Your task to perform on an android device: all mails in gmail Image 0: 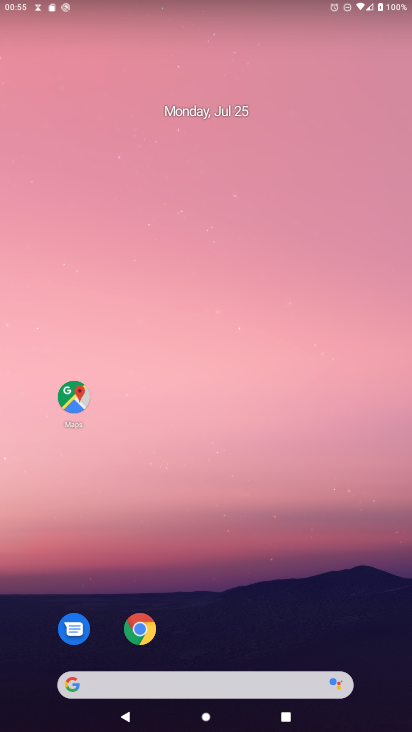
Step 0: drag from (168, 548) to (260, 0)
Your task to perform on an android device: all mails in gmail Image 1: 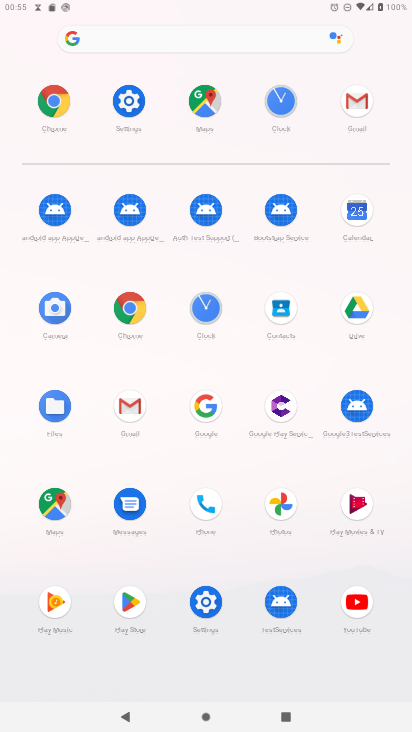
Step 1: click (129, 405)
Your task to perform on an android device: all mails in gmail Image 2: 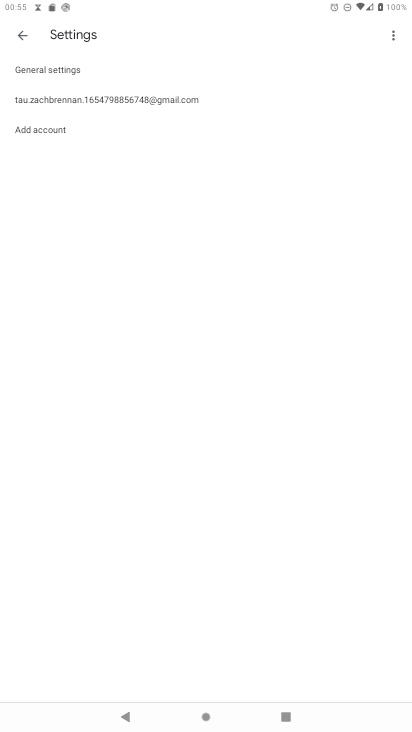
Step 2: click (177, 102)
Your task to perform on an android device: all mails in gmail Image 3: 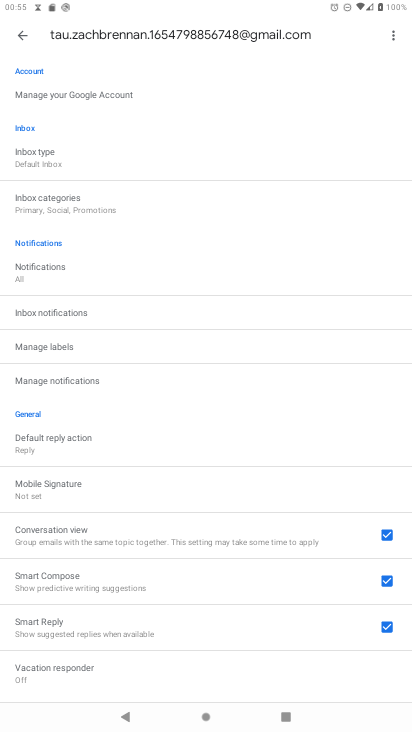
Step 3: click (16, 35)
Your task to perform on an android device: all mails in gmail Image 4: 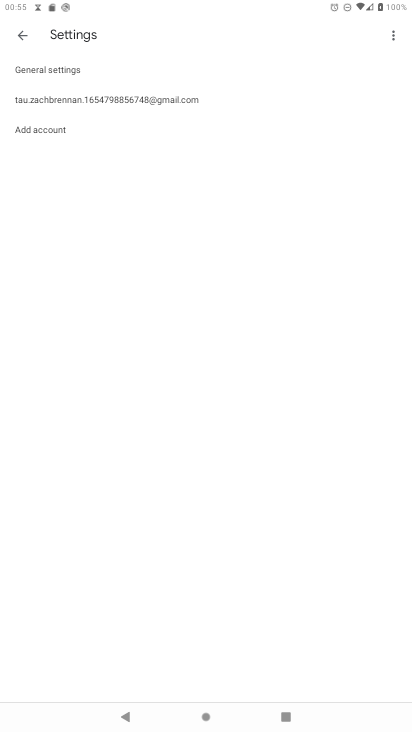
Step 4: click (20, 40)
Your task to perform on an android device: all mails in gmail Image 5: 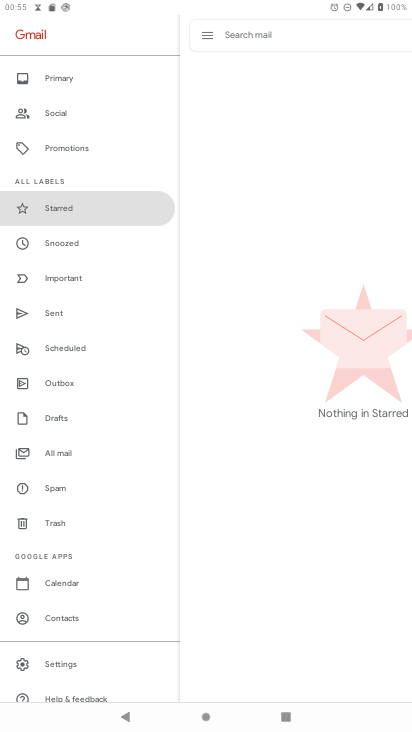
Step 5: click (55, 450)
Your task to perform on an android device: all mails in gmail Image 6: 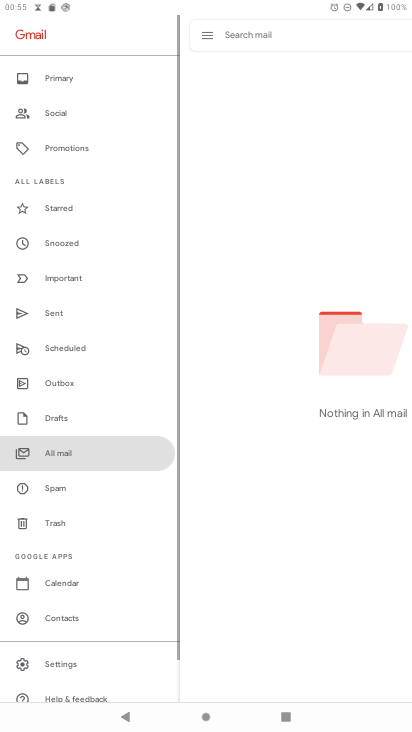
Step 6: task complete